Your task to perform on an android device: Go to settings Image 0: 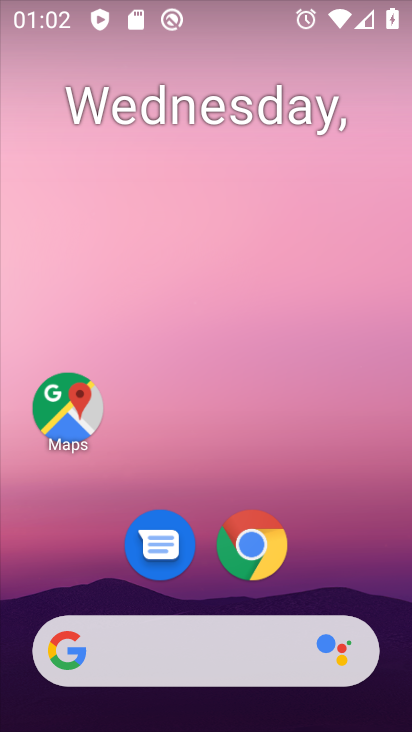
Step 0: drag from (323, 578) to (337, 68)
Your task to perform on an android device: Go to settings Image 1: 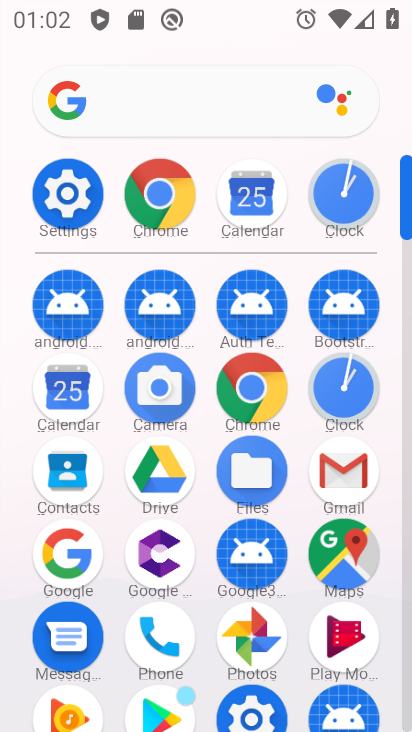
Step 1: click (74, 183)
Your task to perform on an android device: Go to settings Image 2: 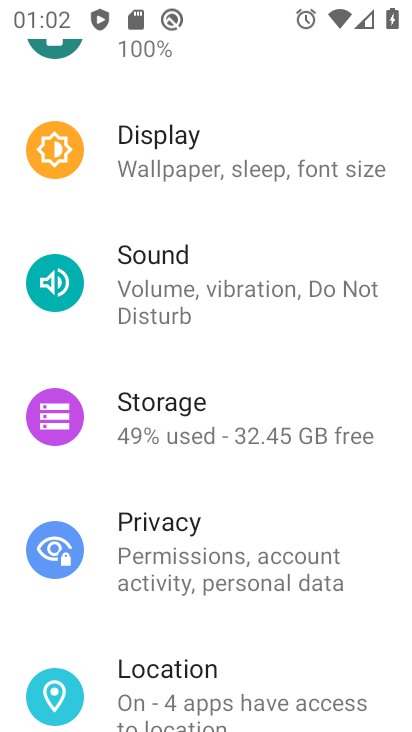
Step 2: task complete